Your task to perform on an android device: check google app version Image 0: 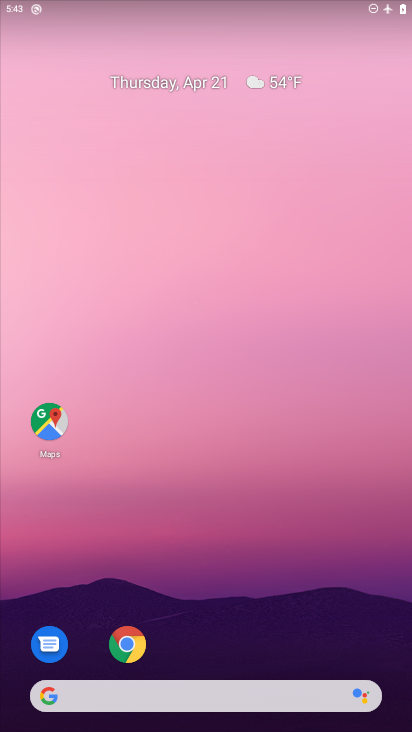
Step 0: drag from (178, 673) to (285, 353)
Your task to perform on an android device: check google app version Image 1: 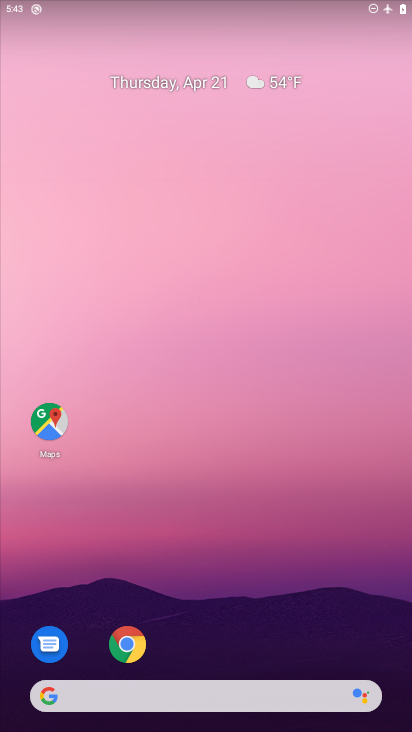
Step 1: drag from (223, 490) to (277, 299)
Your task to perform on an android device: check google app version Image 2: 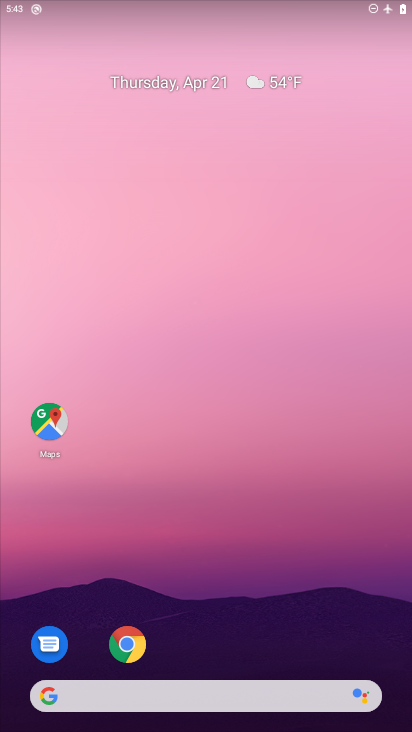
Step 2: drag from (228, 481) to (354, 103)
Your task to perform on an android device: check google app version Image 3: 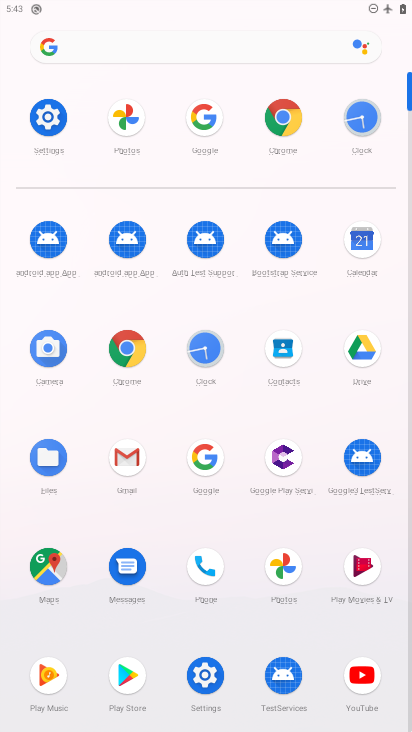
Step 3: click (205, 459)
Your task to perform on an android device: check google app version Image 4: 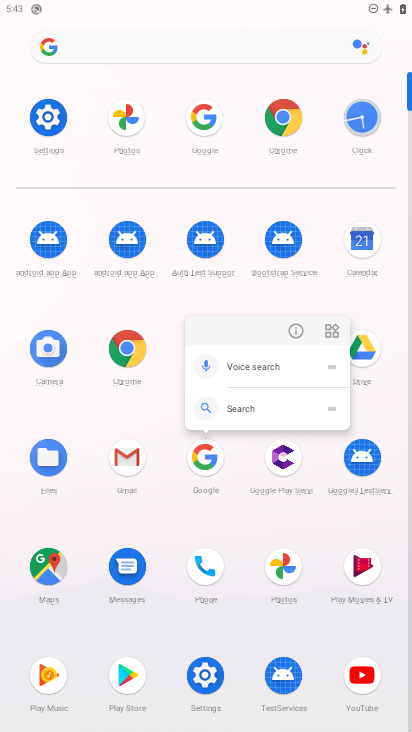
Step 4: click (290, 327)
Your task to perform on an android device: check google app version Image 5: 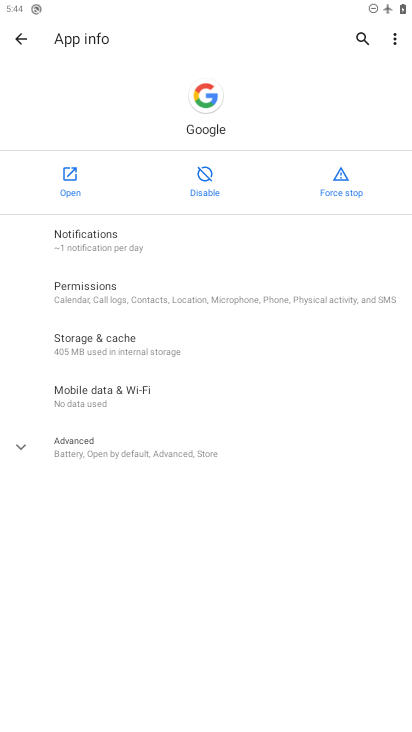
Step 5: click (87, 442)
Your task to perform on an android device: check google app version Image 6: 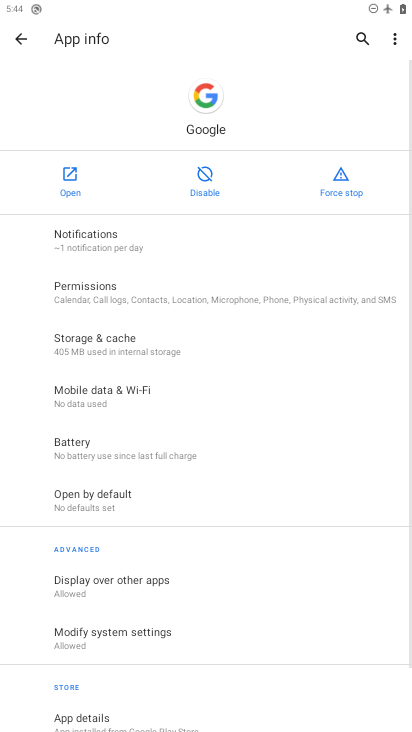
Step 6: task complete